Your task to perform on an android device: Play the last video I watched on Youtube Image 0: 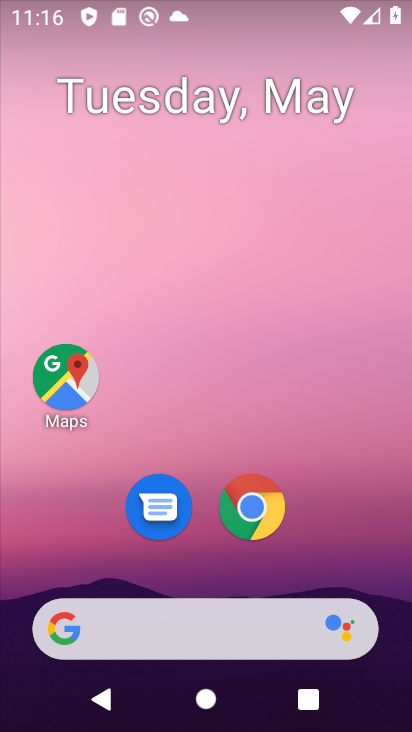
Step 0: drag from (257, 447) to (231, 168)
Your task to perform on an android device: Play the last video I watched on Youtube Image 1: 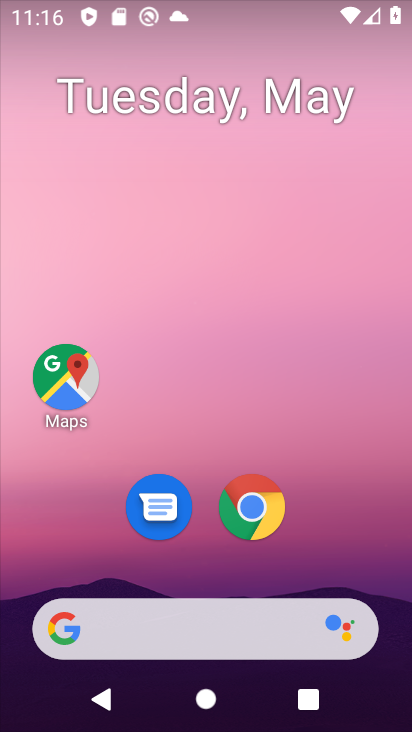
Step 1: drag from (257, 675) to (170, 170)
Your task to perform on an android device: Play the last video I watched on Youtube Image 2: 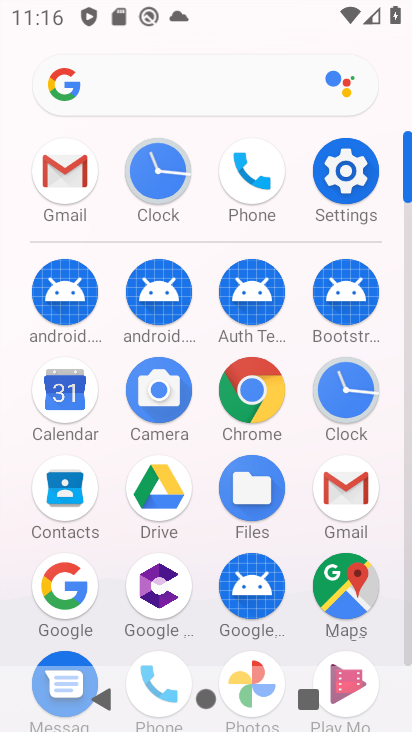
Step 2: drag from (300, 550) to (296, 104)
Your task to perform on an android device: Play the last video I watched on Youtube Image 3: 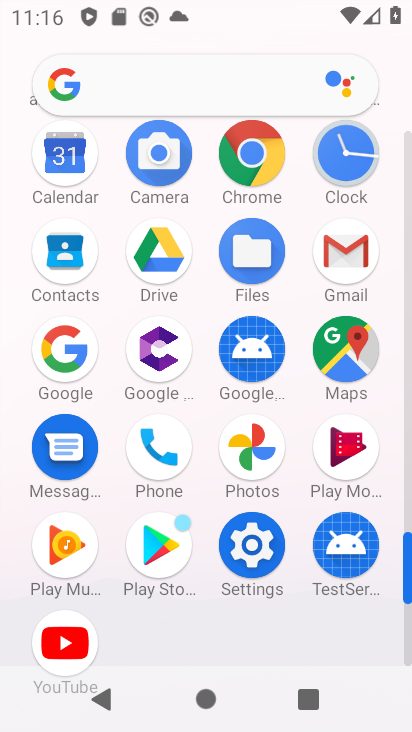
Step 3: drag from (295, 404) to (291, 77)
Your task to perform on an android device: Play the last video I watched on Youtube Image 4: 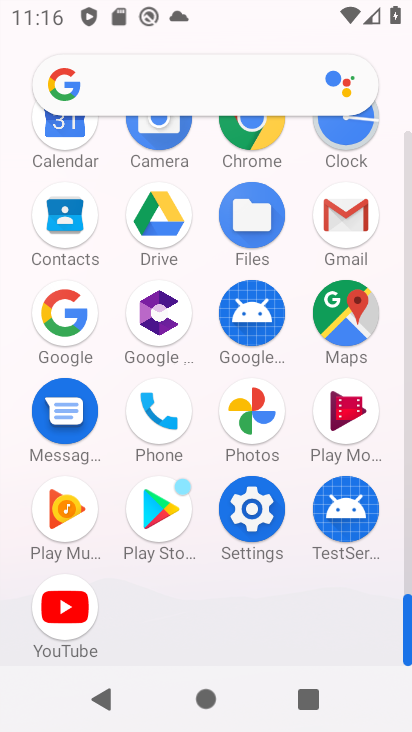
Step 4: click (64, 614)
Your task to perform on an android device: Play the last video I watched on Youtube Image 5: 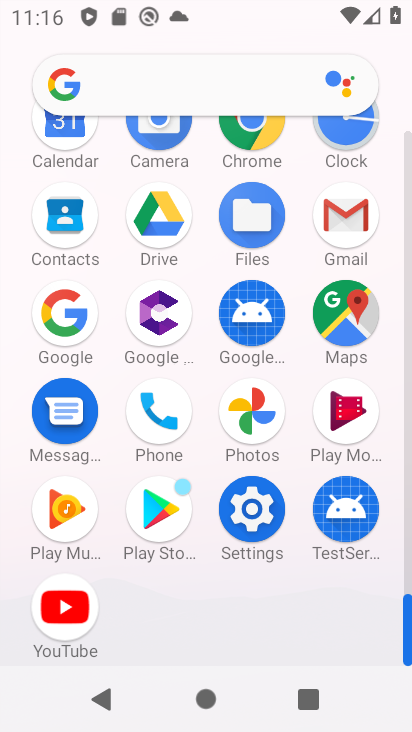
Step 5: click (64, 614)
Your task to perform on an android device: Play the last video I watched on Youtube Image 6: 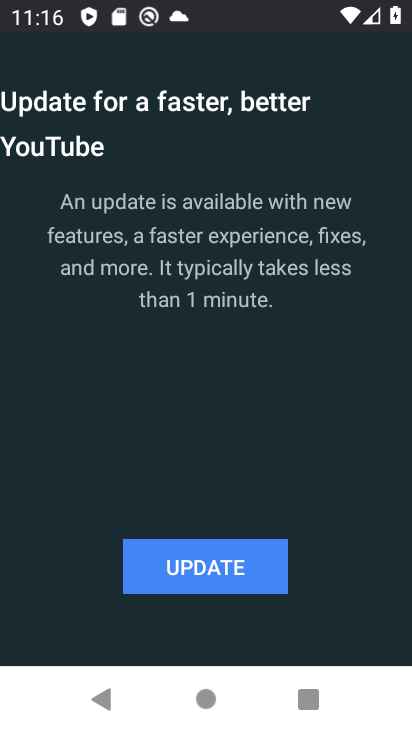
Step 6: click (216, 564)
Your task to perform on an android device: Play the last video I watched on Youtube Image 7: 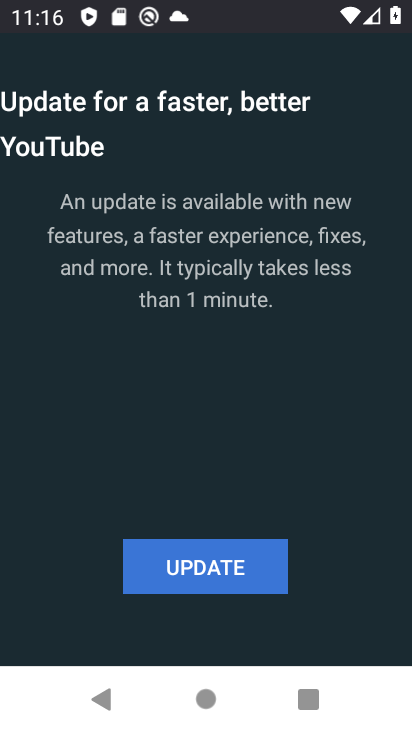
Step 7: click (223, 561)
Your task to perform on an android device: Play the last video I watched on Youtube Image 8: 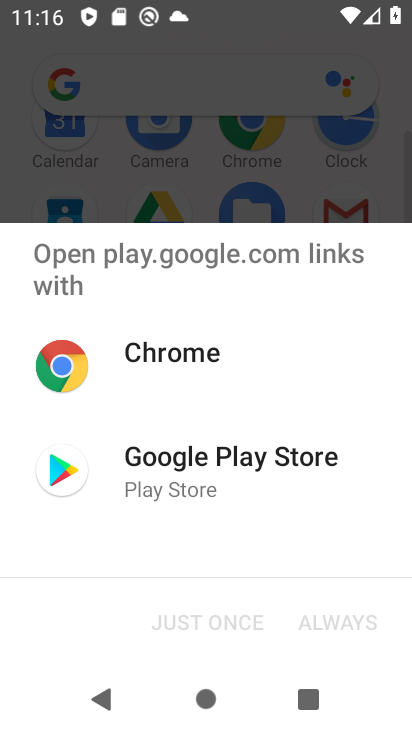
Step 8: click (179, 455)
Your task to perform on an android device: Play the last video I watched on Youtube Image 9: 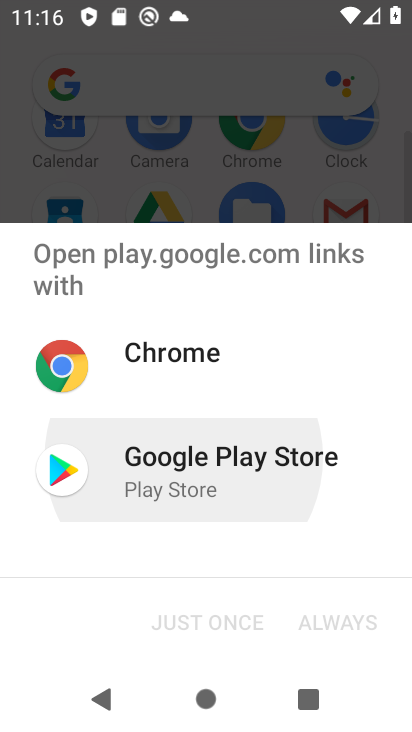
Step 9: click (179, 455)
Your task to perform on an android device: Play the last video I watched on Youtube Image 10: 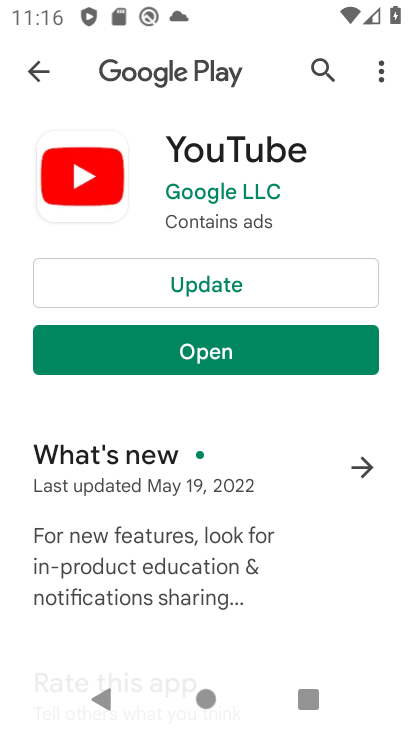
Step 10: click (234, 287)
Your task to perform on an android device: Play the last video I watched on Youtube Image 11: 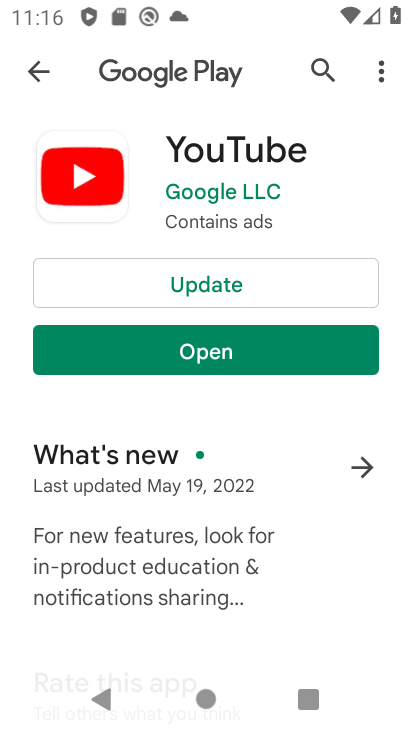
Step 11: click (234, 287)
Your task to perform on an android device: Play the last video I watched on Youtube Image 12: 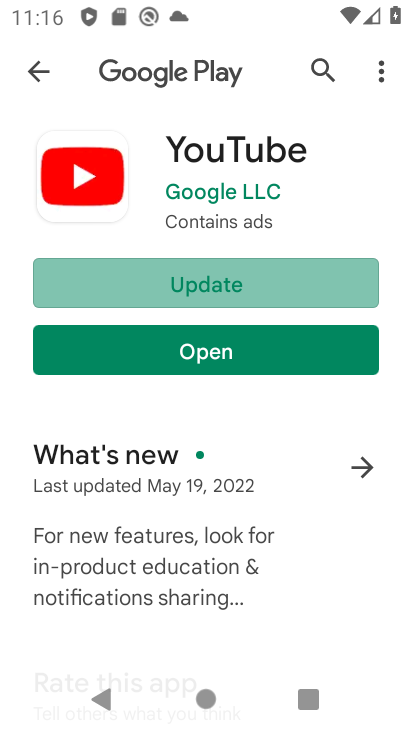
Step 12: click (234, 287)
Your task to perform on an android device: Play the last video I watched on Youtube Image 13: 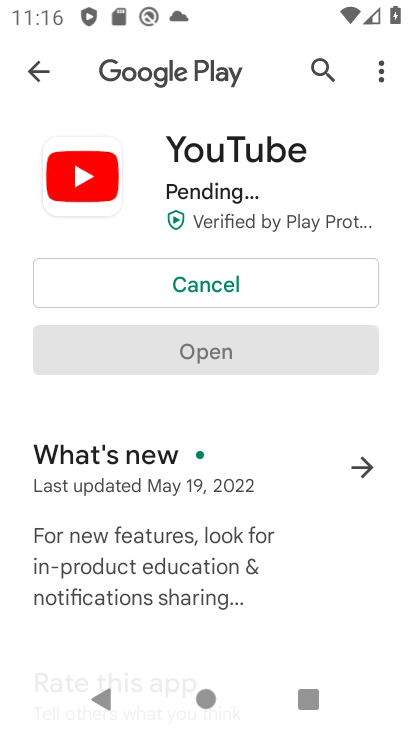
Step 13: click (233, 286)
Your task to perform on an android device: Play the last video I watched on Youtube Image 14: 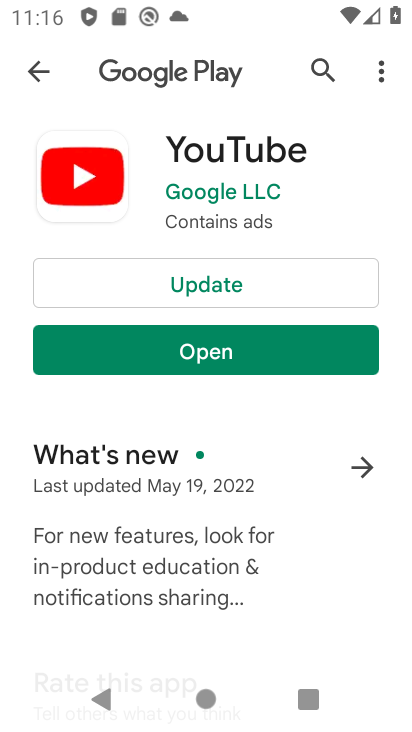
Step 14: click (192, 282)
Your task to perform on an android device: Play the last video I watched on Youtube Image 15: 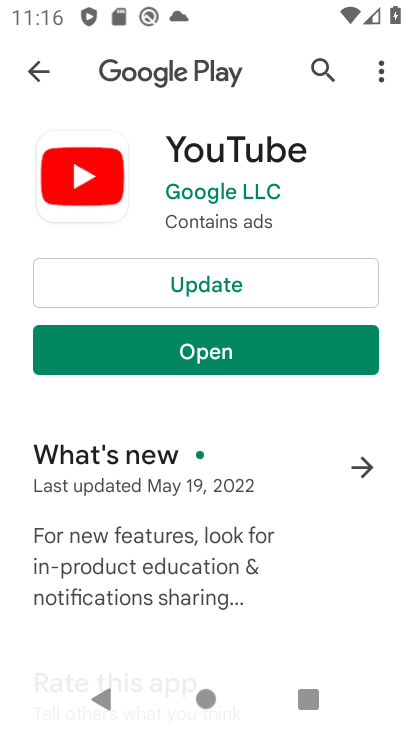
Step 15: click (194, 283)
Your task to perform on an android device: Play the last video I watched on Youtube Image 16: 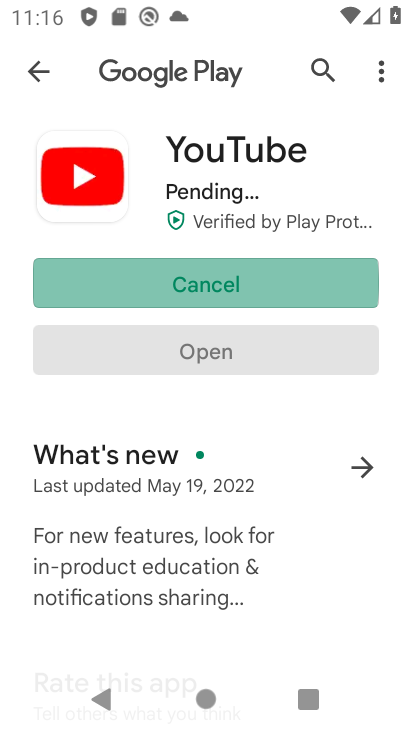
Step 16: click (203, 276)
Your task to perform on an android device: Play the last video I watched on Youtube Image 17: 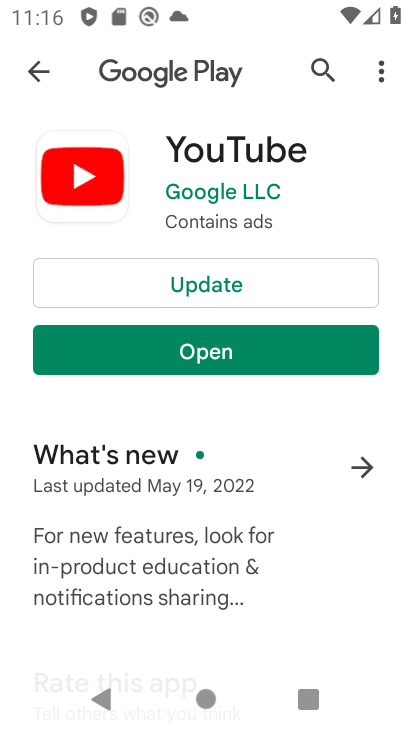
Step 17: click (207, 283)
Your task to perform on an android device: Play the last video I watched on Youtube Image 18: 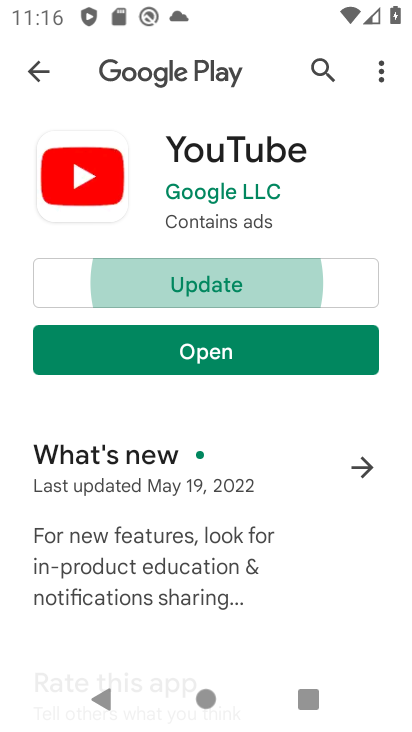
Step 18: click (207, 283)
Your task to perform on an android device: Play the last video I watched on Youtube Image 19: 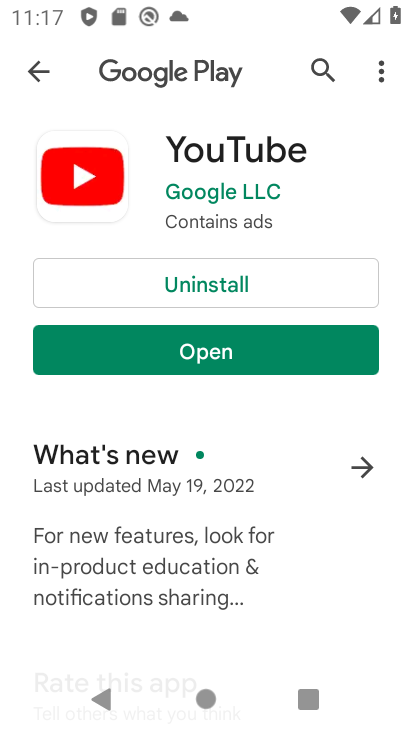
Step 19: click (225, 351)
Your task to perform on an android device: Play the last video I watched on Youtube Image 20: 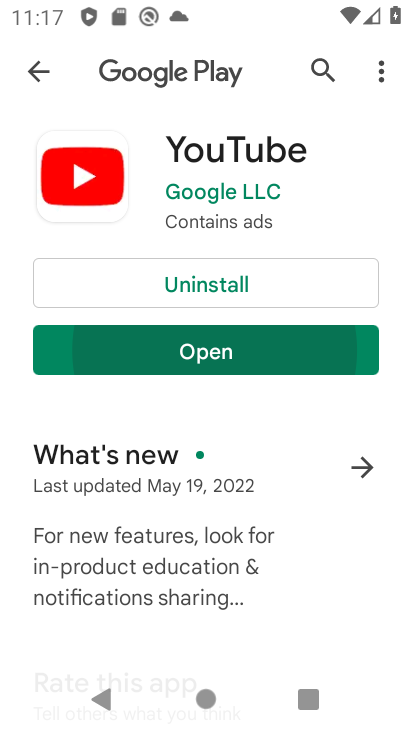
Step 20: click (225, 351)
Your task to perform on an android device: Play the last video I watched on Youtube Image 21: 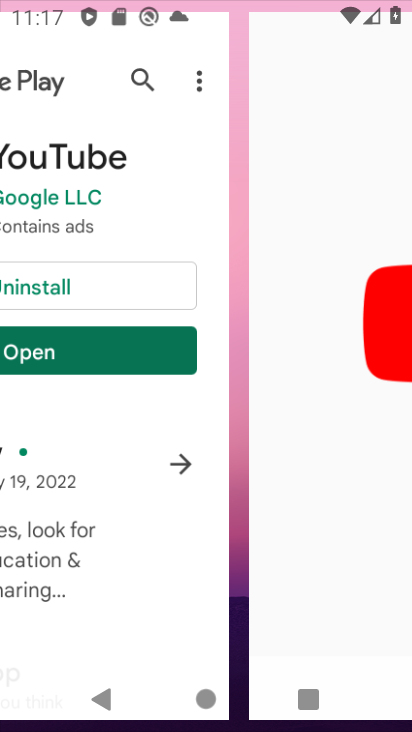
Step 21: click (225, 348)
Your task to perform on an android device: Play the last video I watched on Youtube Image 22: 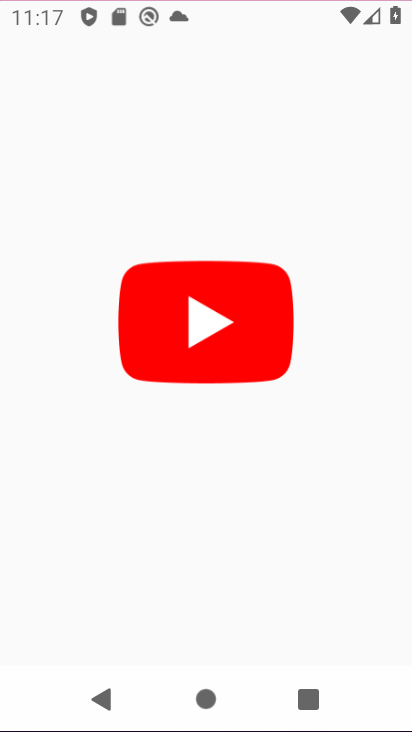
Step 22: click (225, 347)
Your task to perform on an android device: Play the last video I watched on Youtube Image 23: 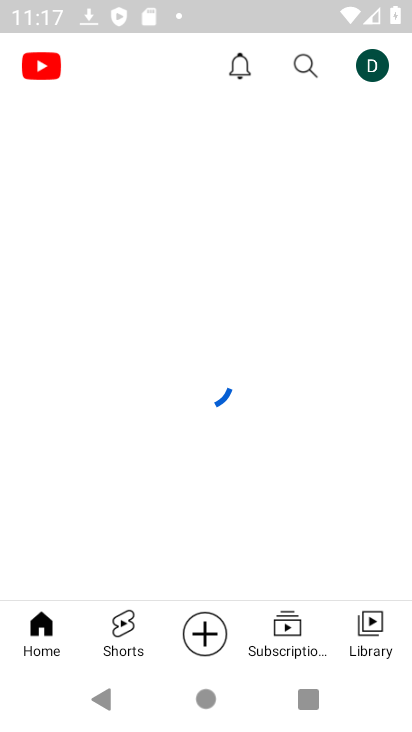
Step 23: task complete